Your task to perform on an android device: Open Google Maps and go to "Timeline" Image 0: 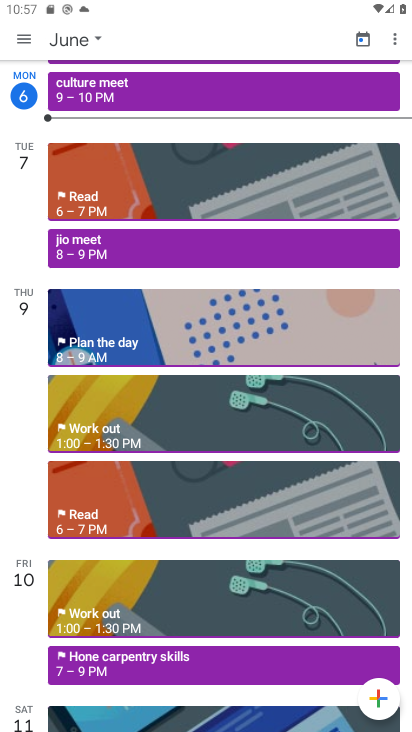
Step 0: press home button
Your task to perform on an android device: Open Google Maps and go to "Timeline" Image 1: 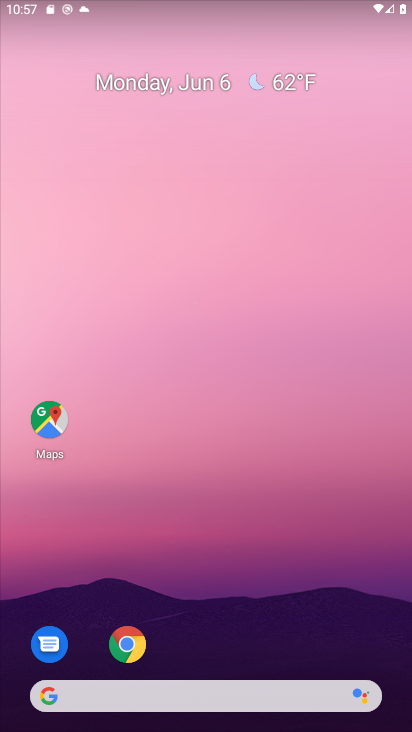
Step 1: click (57, 425)
Your task to perform on an android device: Open Google Maps and go to "Timeline" Image 2: 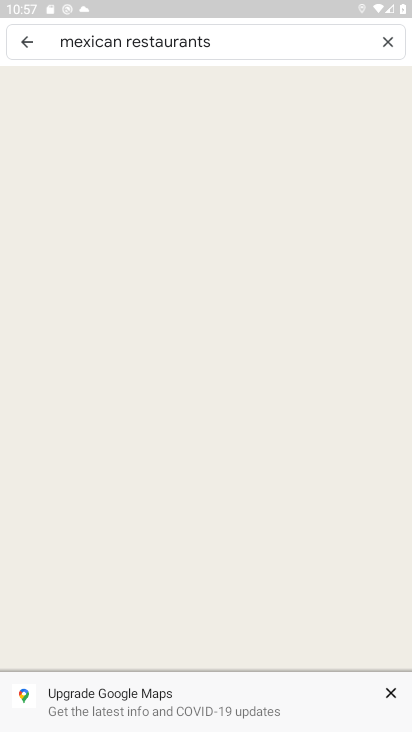
Step 2: click (380, 45)
Your task to perform on an android device: Open Google Maps and go to "Timeline" Image 3: 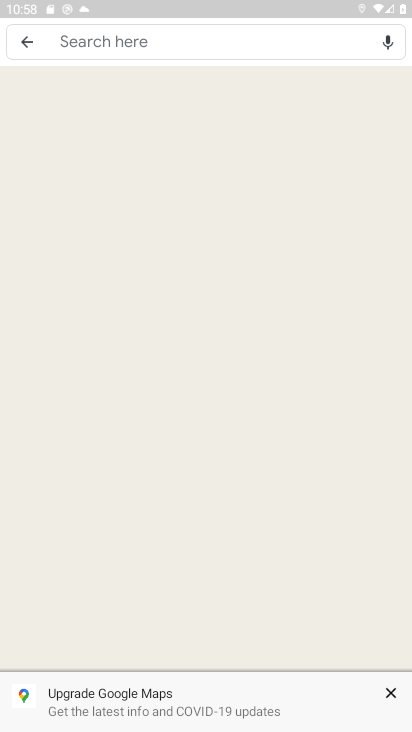
Step 3: click (19, 41)
Your task to perform on an android device: Open Google Maps and go to "Timeline" Image 4: 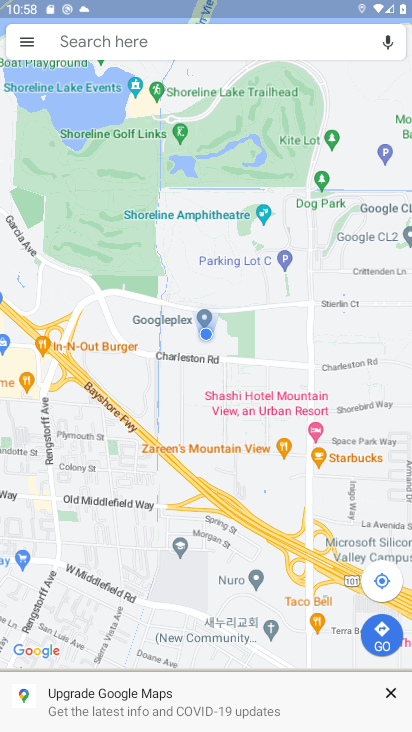
Step 4: task complete